Your task to perform on an android device: Show me popular games on the Play Store Image 0: 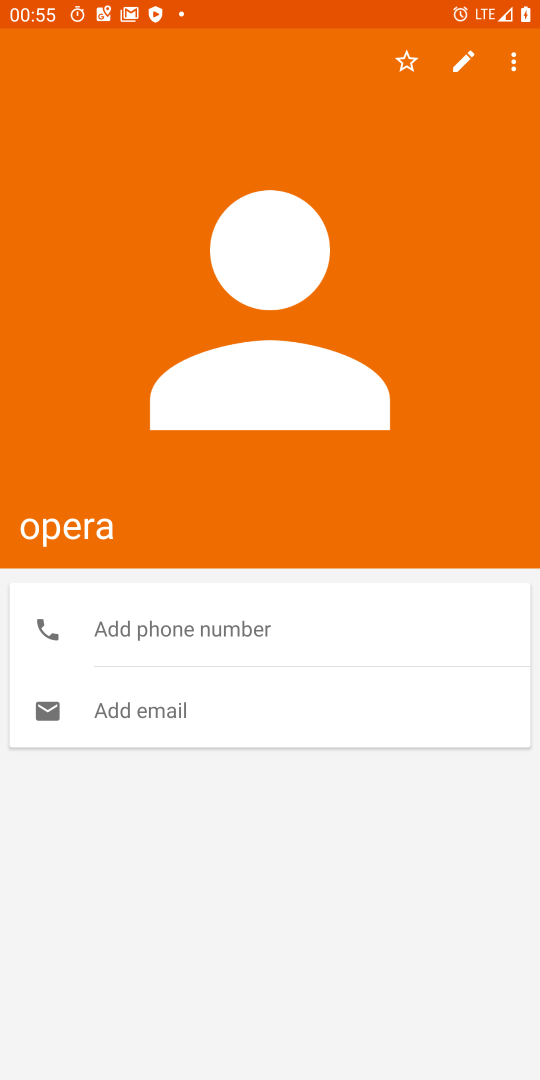
Step 0: press home button
Your task to perform on an android device: Show me popular games on the Play Store Image 1: 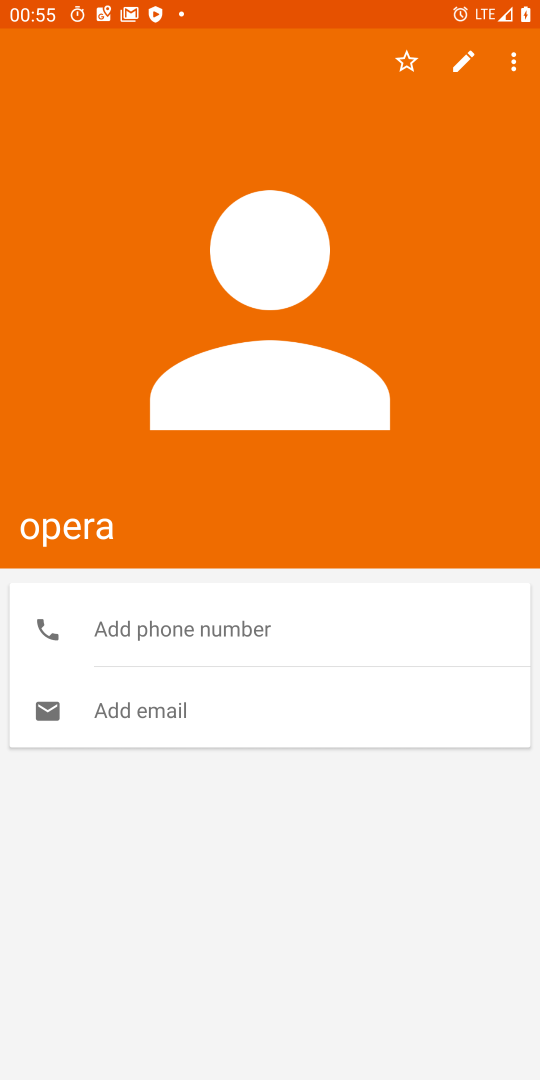
Step 1: press home button
Your task to perform on an android device: Show me popular games on the Play Store Image 2: 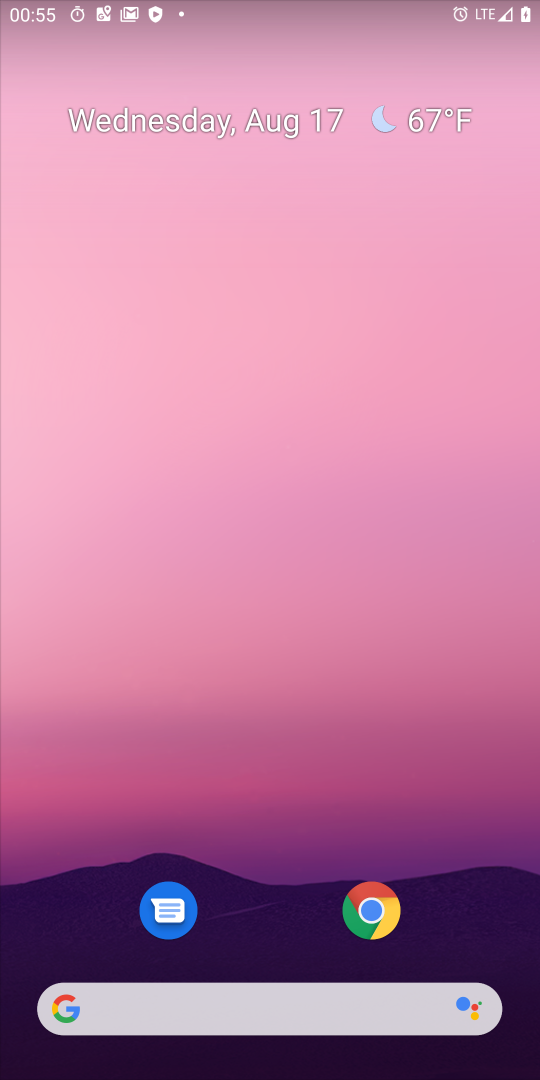
Step 2: drag from (258, 968) to (276, 27)
Your task to perform on an android device: Show me popular games on the Play Store Image 3: 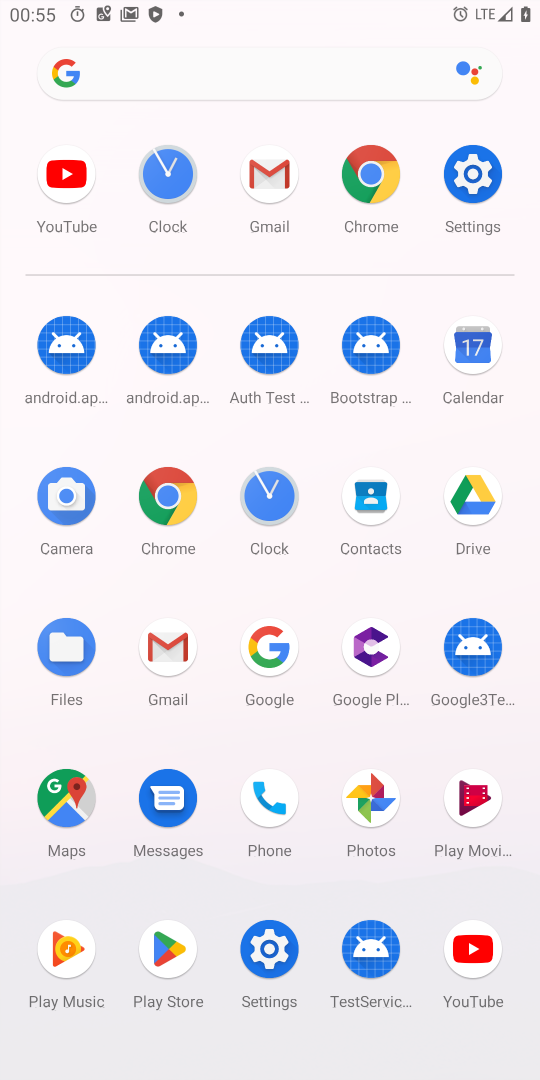
Step 3: click (161, 955)
Your task to perform on an android device: Show me popular games on the Play Store Image 4: 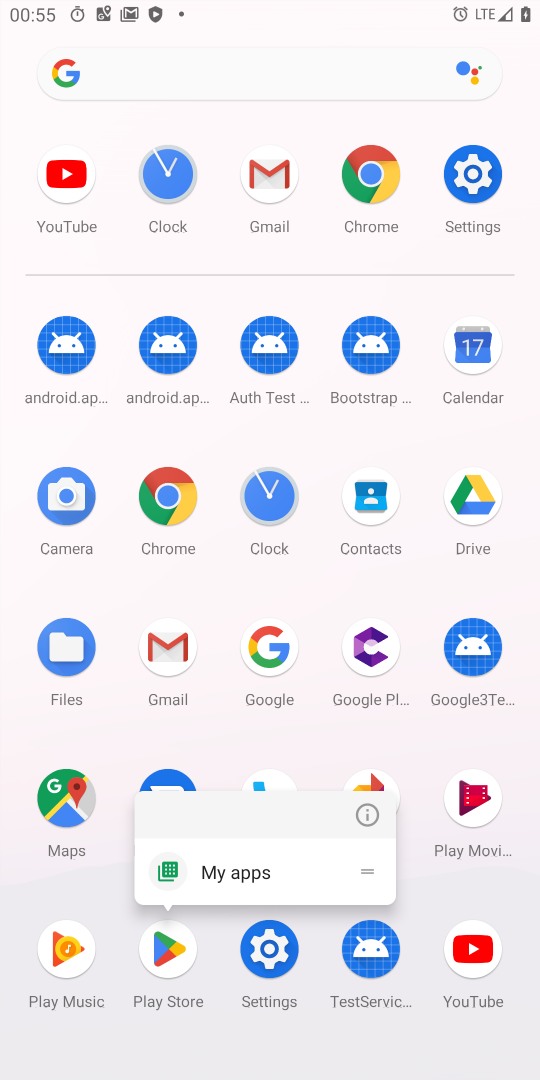
Step 4: click (176, 956)
Your task to perform on an android device: Show me popular games on the Play Store Image 5: 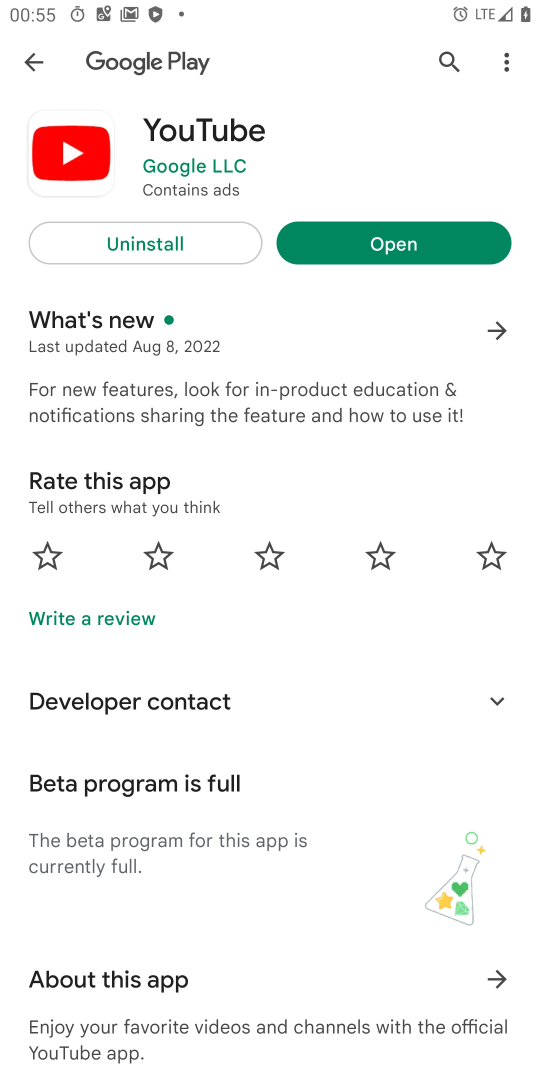
Step 5: click (34, 72)
Your task to perform on an android device: Show me popular games on the Play Store Image 6: 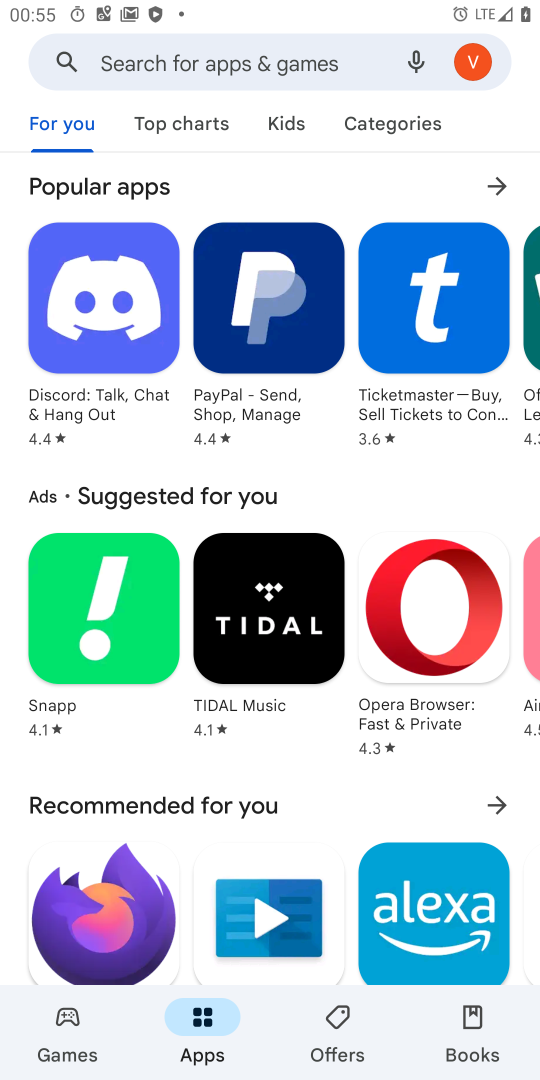
Step 6: click (63, 1046)
Your task to perform on an android device: Show me popular games on the Play Store Image 7: 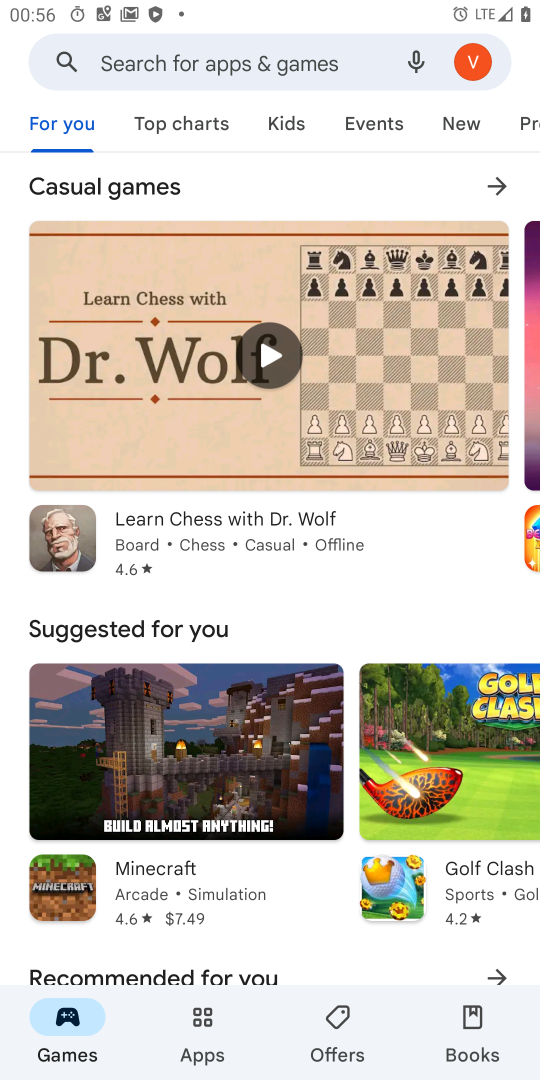
Step 7: task complete